Your task to perform on an android device: set default search engine in the chrome app Image 0: 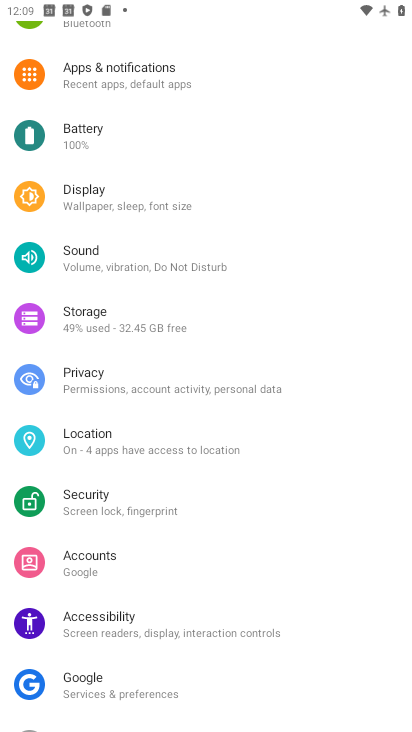
Step 0: press home button
Your task to perform on an android device: set default search engine in the chrome app Image 1: 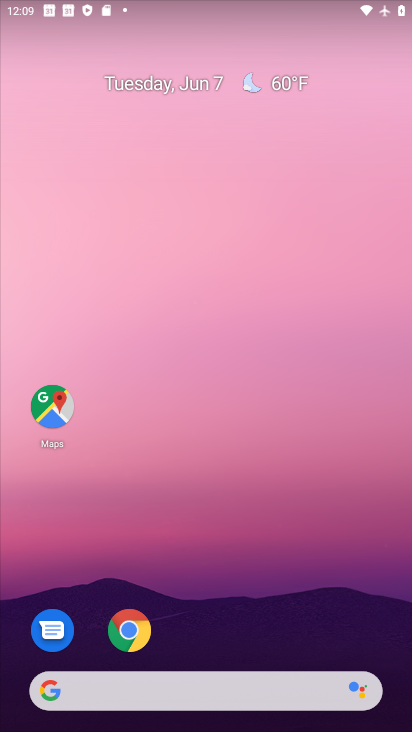
Step 1: drag from (382, 646) to (299, 70)
Your task to perform on an android device: set default search engine in the chrome app Image 2: 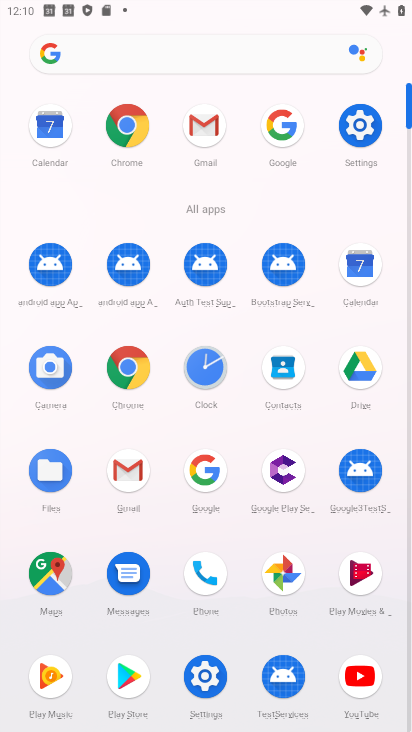
Step 2: click (132, 365)
Your task to perform on an android device: set default search engine in the chrome app Image 3: 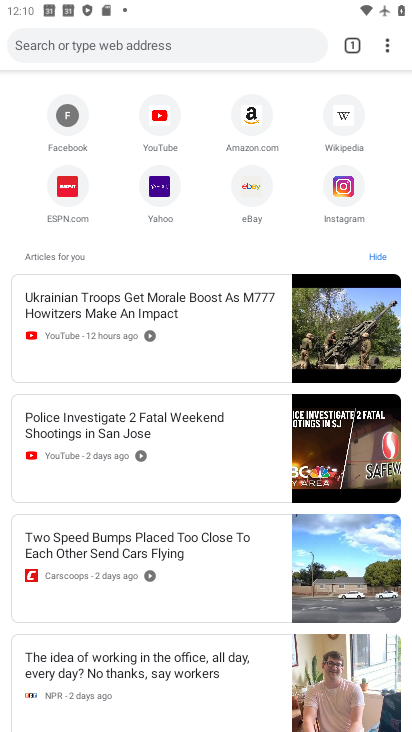
Step 3: click (389, 36)
Your task to perform on an android device: set default search engine in the chrome app Image 4: 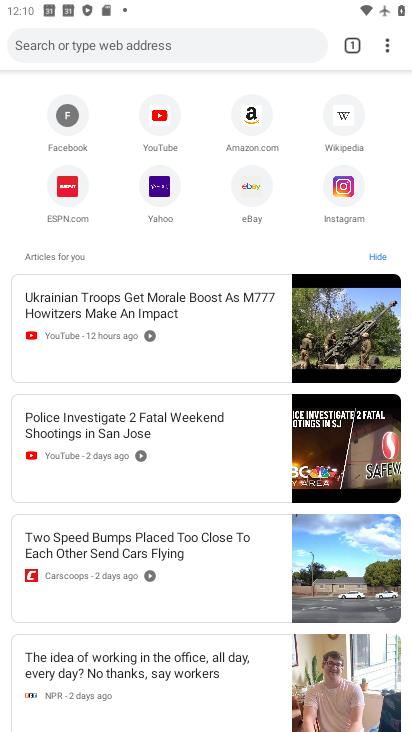
Step 4: click (383, 42)
Your task to perform on an android device: set default search engine in the chrome app Image 5: 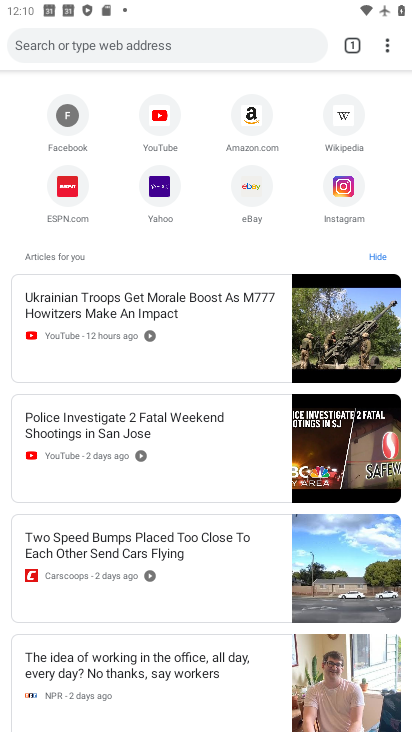
Step 5: click (391, 46)
Your task to perform on an android device: set default search engine in the chrome app Image 6: 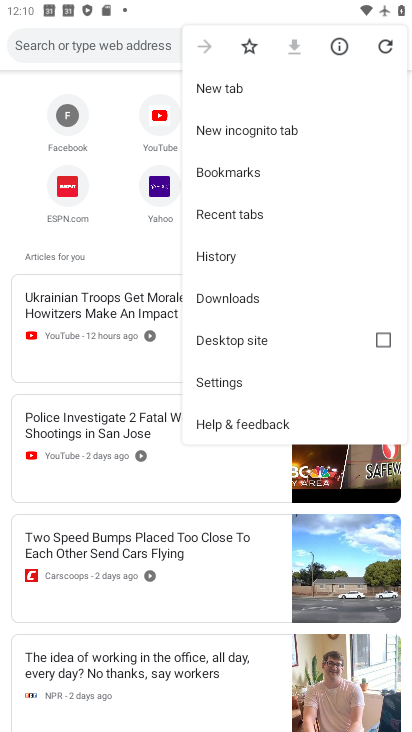
Step 6: click (292, 390)
Your task to perform on an android device: set default search engine in the chrome app Image 7: 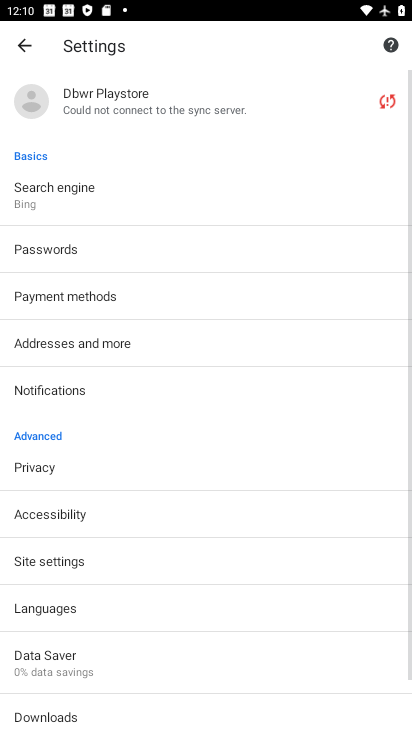
Step 7: click (106, 209)
Your task to perform on an android device: set default search engine in the chrome app Image 8: 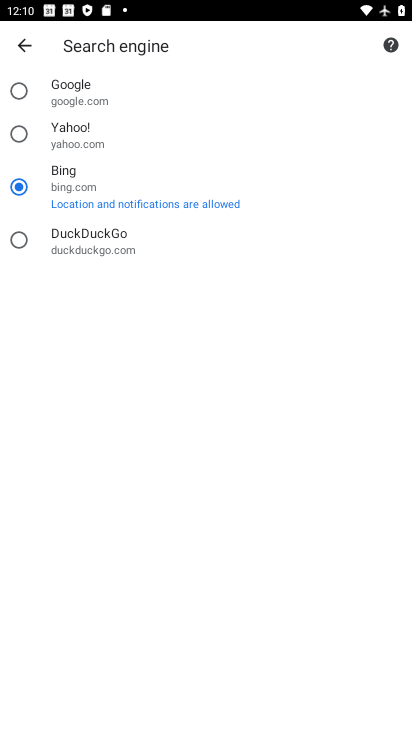
Step 8: click (45, 108)
Your task to perform on an android device: set default search engine in the chrome app Image 9: 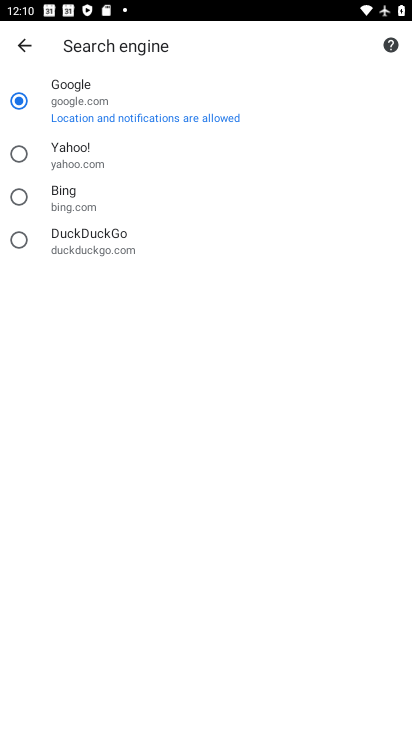
Step 9: task complete